Your task to perform on an android device: toggle wifi Image 0: 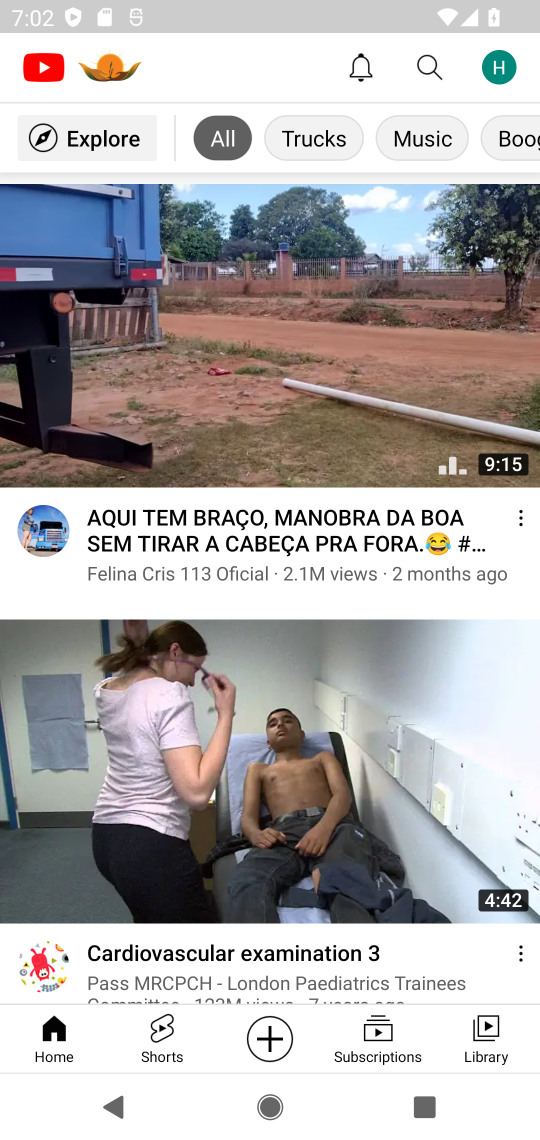
Step 0: press home button
Your task to perform on an android device: toggle wifi Image 1: 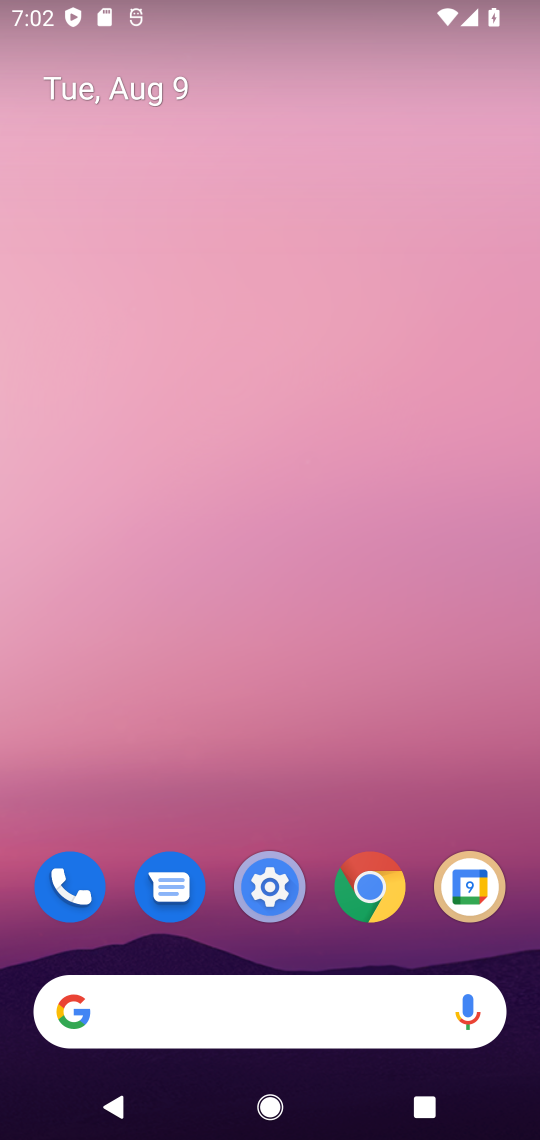
Step 1: click (274, 889)
Your task to perform on an android device: toggle wifi Image 2: 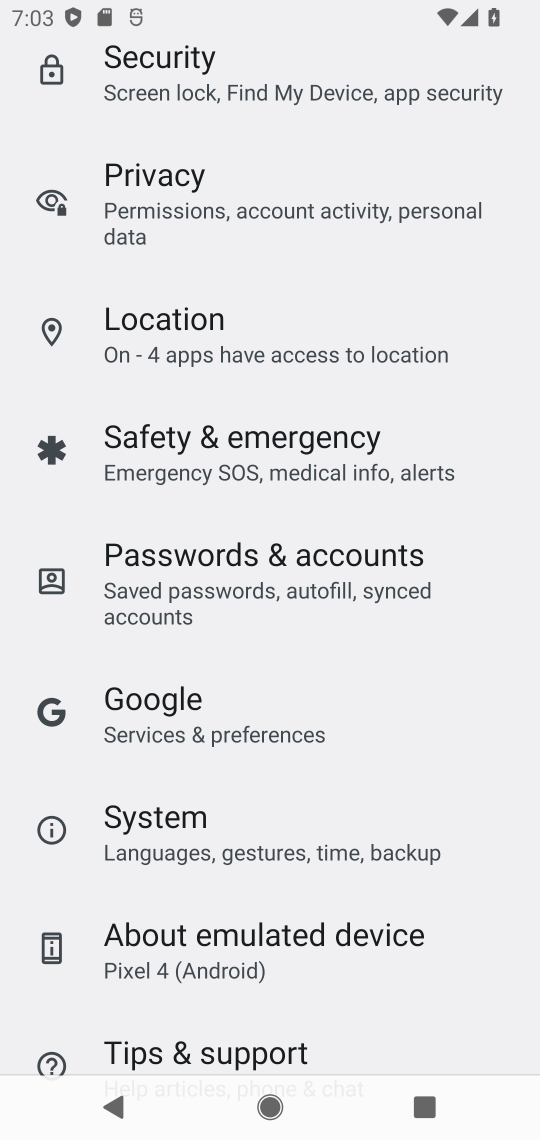
Step 2: drag from (311, 258) to (276, 911)
Your task to perform on an android device: toggle wifi Image 3: 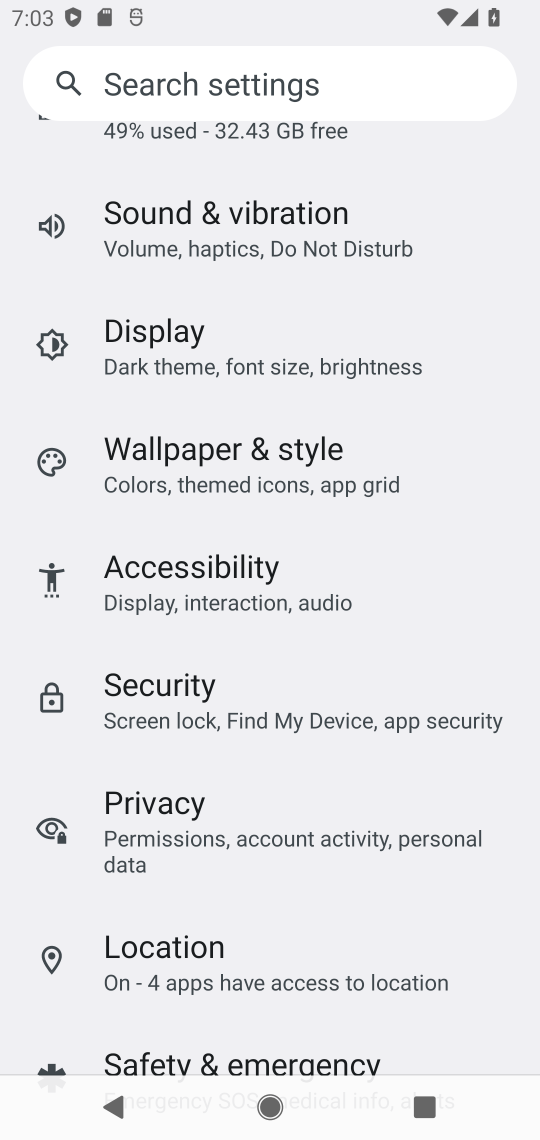
Step 3: drag from (272, 169) to (290, 949)
Your task to perform on an android device: toggle wifi Image 4: 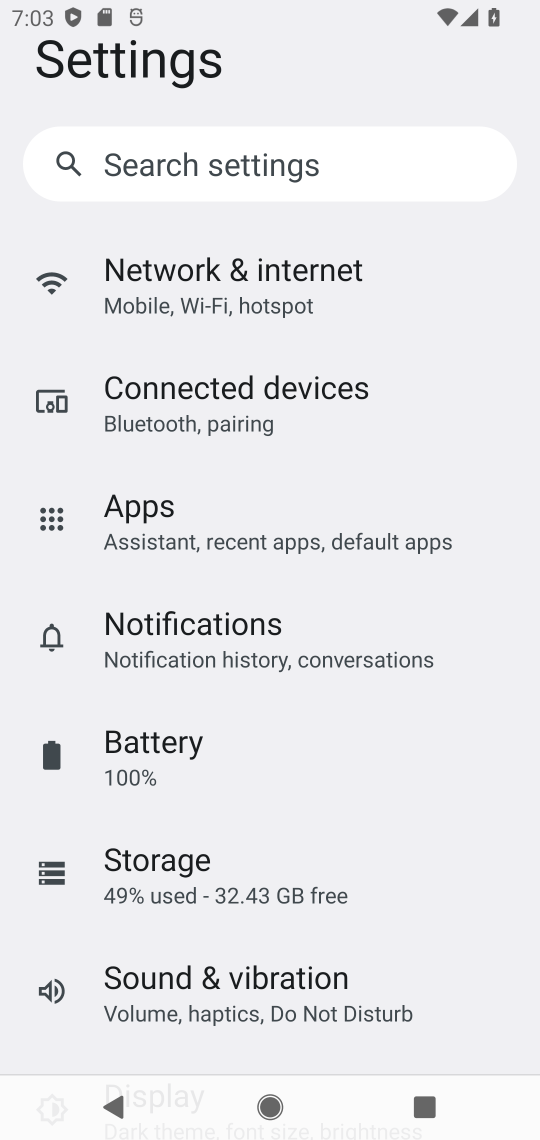
Step 4: click (283, 287)
Your task to perform on an android device: toggle wifi Image 5: 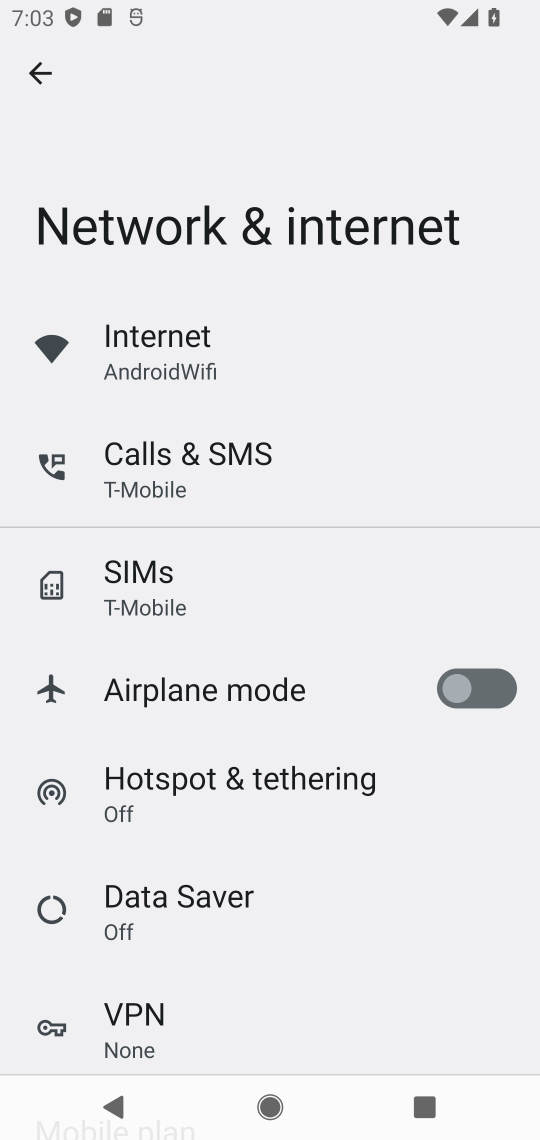
Step 5: click (134, 368)
Your task to perform on an android device: toggle wifi Image 6: 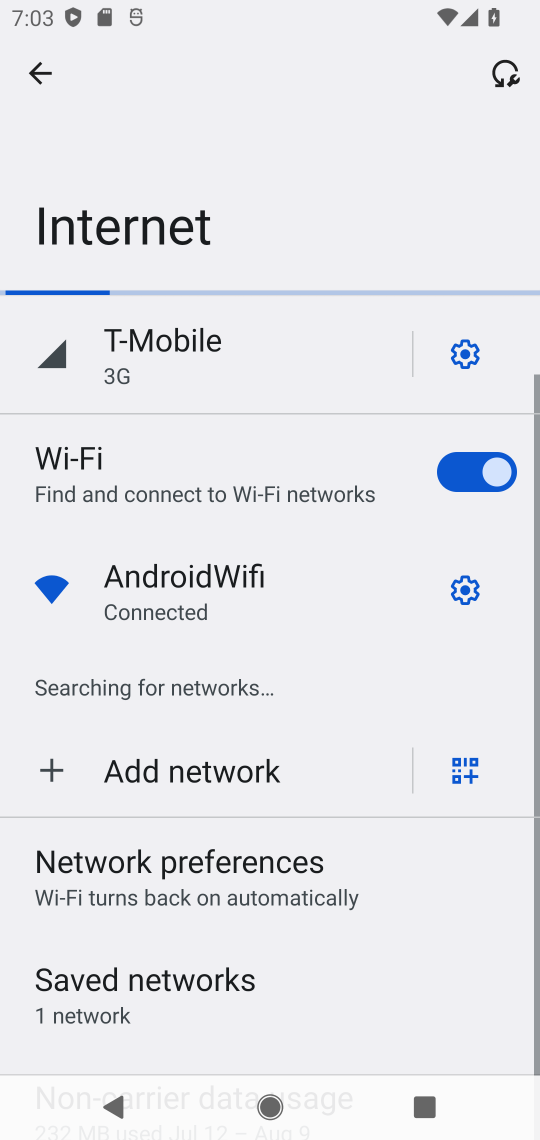
Step 6: click (470, 466)
Your task to perform on an android device: toggle wifi Image 7: 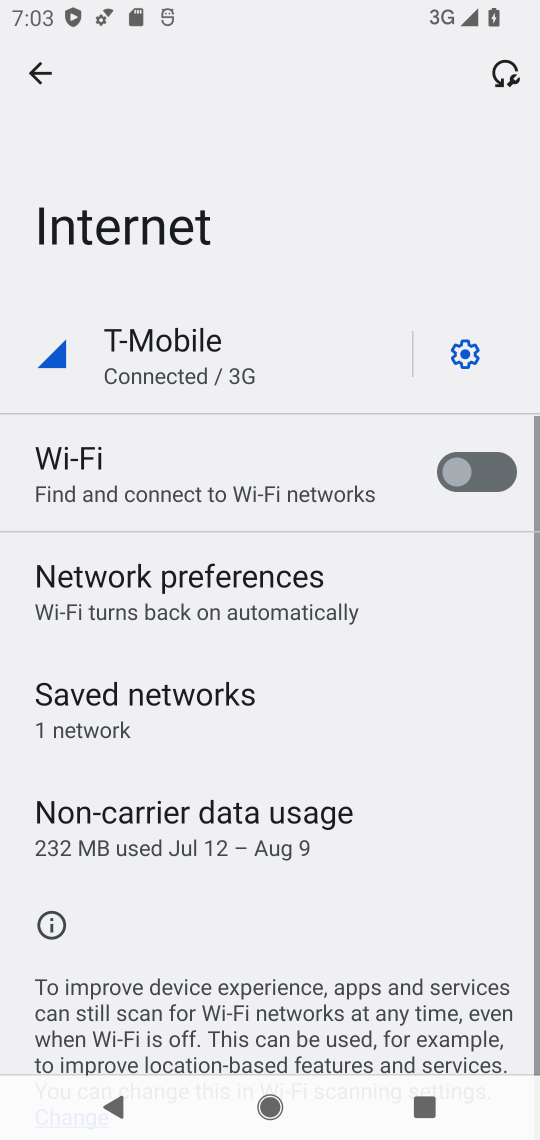
Step 7: task complete